Your task to perform on an android device: Go to Maps Image 0: 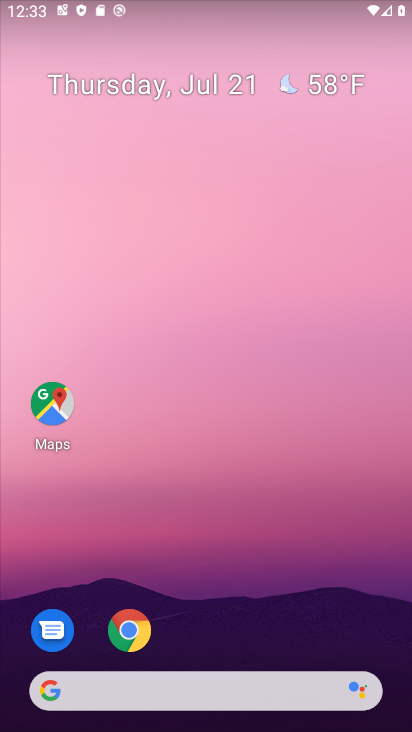
Step 0: click (59, 408)
Your task to perform on an android device: Go to Maps Image 1: 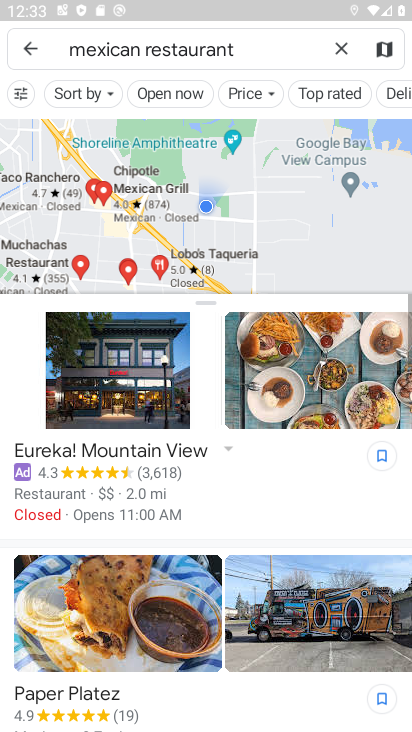
Step 1: click (339, 56)
Your task to perform on an android device: Go to Maps Image 2: 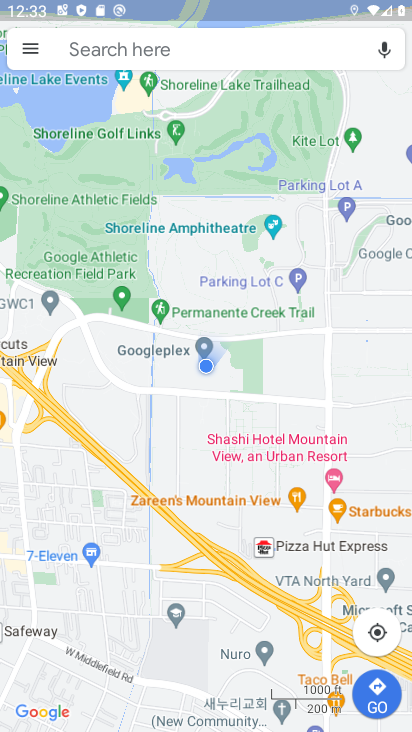
Step 2: task complete